Your task to perform on an android device: Go to Amazon Image 0: 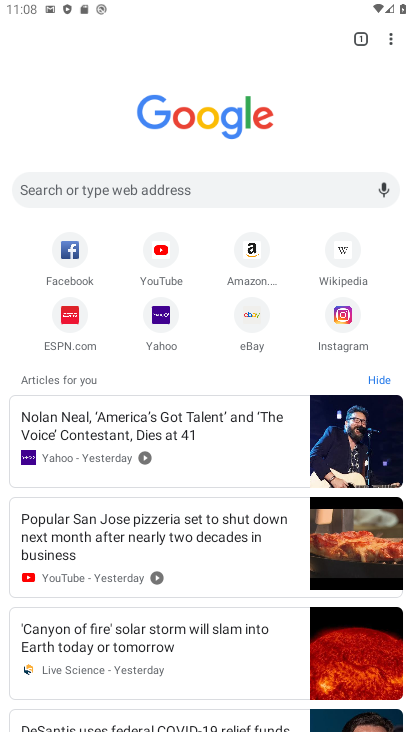
Step 0: click (250, 264)
Your task to perform on an android device: Go to Amazon Image 1: 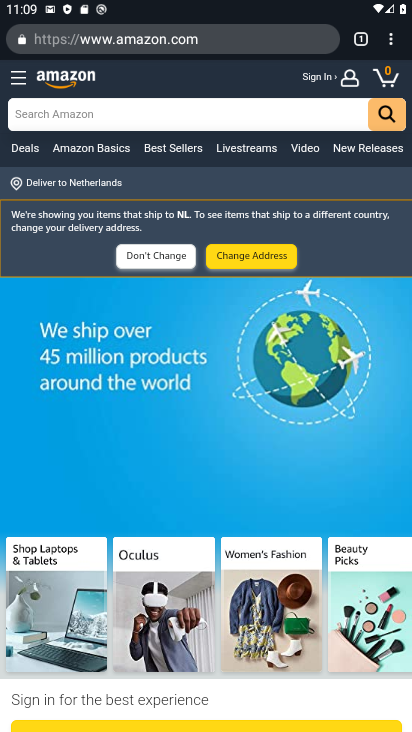
Step 1: task complete